Your task to perform on an android device: choose inbox layout in the gmail app Image 0: 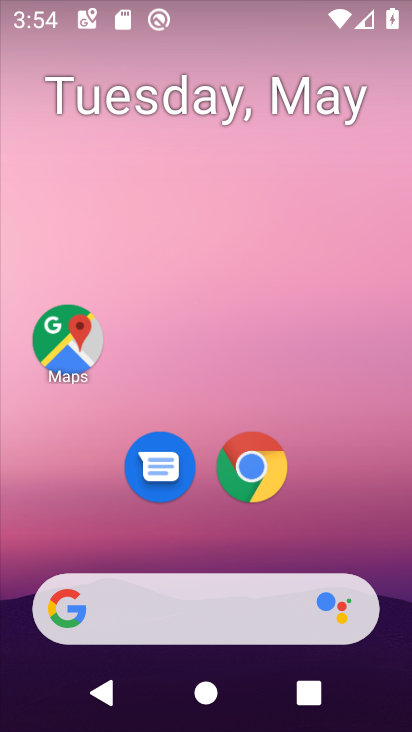
Step 0: drag from (309, 534) to (246, 103)
Your task to perform on an android device: choose inbox layout in the gmail app Image 1: 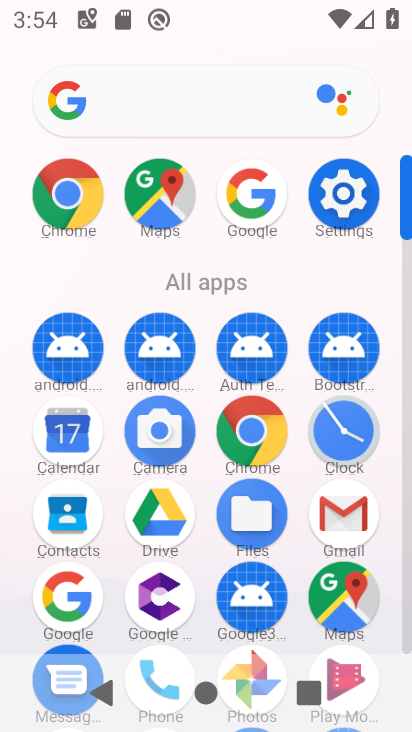
Step 1: click (348, 510)
Your task to perform on an android device: choose inbox layout in the gmail app Image 2: 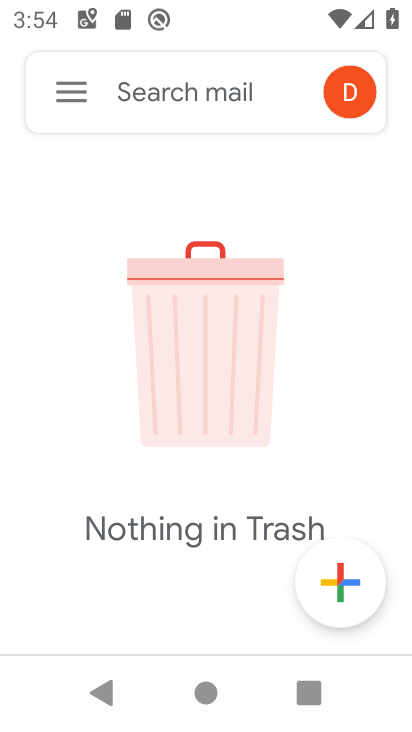
Step 2: click (60, 104)
Your task to perform on an android device: choose inbox layout in the gmail app Image 3: 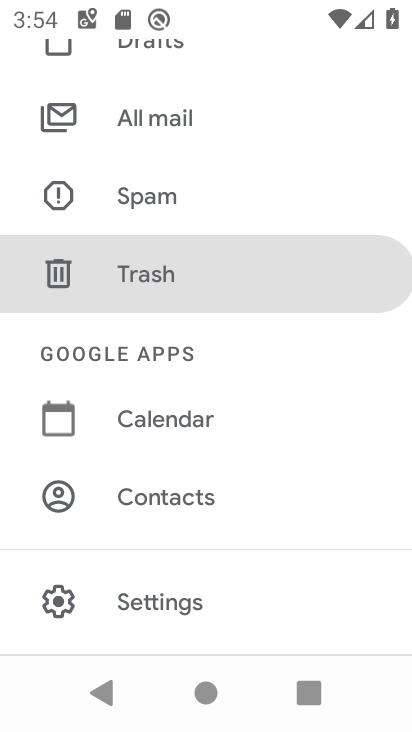
Step 3: click (189, 608)
Your task to perform on an android device: choose inbox layout in the gmail app Image 4: 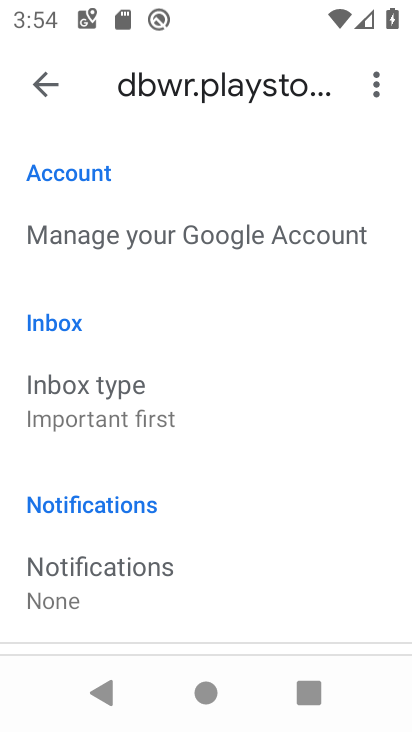
Step 4: drag from (161, 622) to (116, 202)
Your task to perform on an android device: choose inbox layout in the gmail app Image 5: 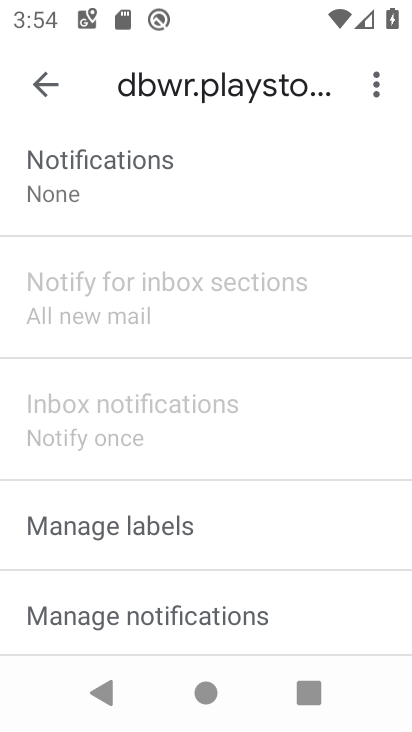
Step 5: drag from (130, 202) to (141, 670)
Your task to perform on an android device: choose inbox layout in the gmail app Image 6: 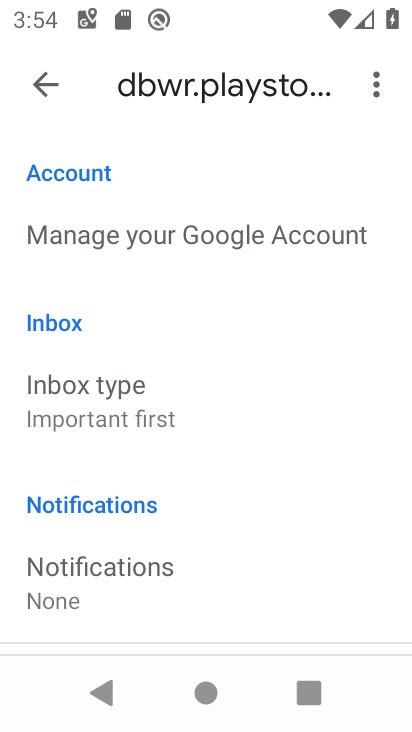
Step 6: click (58, 411)
Your task to perform on an android device: choose inbox layout in the gmail app Image 7: 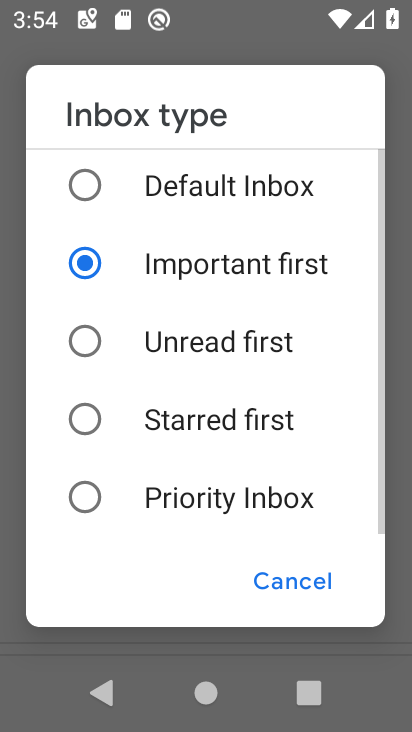
Step 7: click (88, 341)
Your task to perform on an android device: choose inbox layout in the gmail app Image 8: 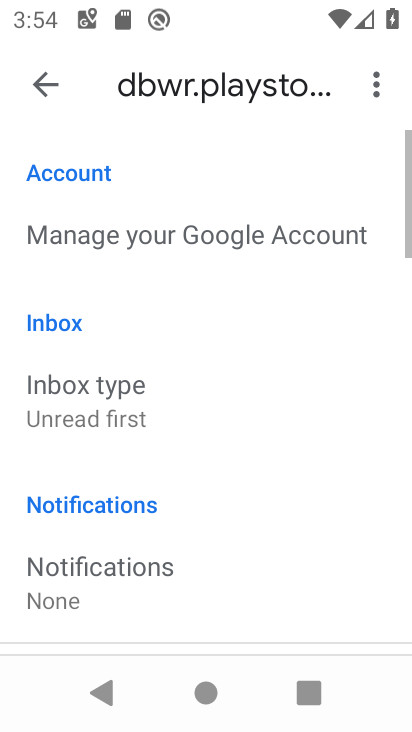
Step 8: task complete